Your task to perform on an android device: Search for seafood restaurants on Google Maps Image 0: 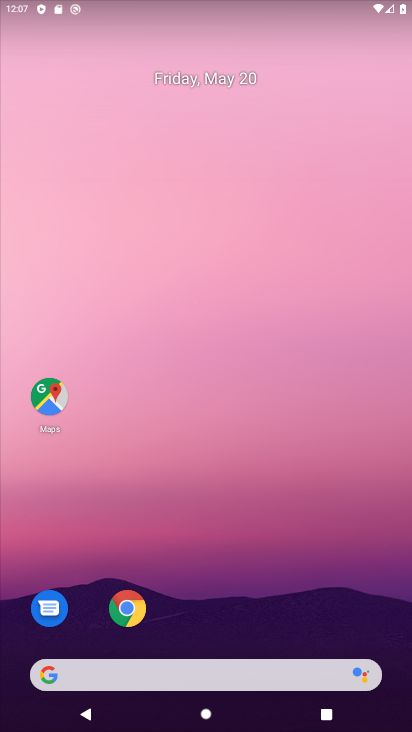
Step 0: drag from (295, 595) to (246, 199)
Your task to perform on an android device: Search for seafood restaurants on Google Maps Image 1: 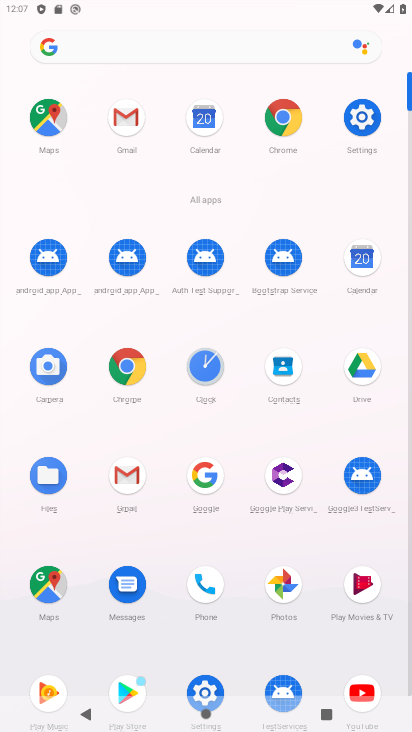
Step 1: click (45, 598)
Your task to perform on an android device: Search for seafood restaurants on Google Maps Image 2: 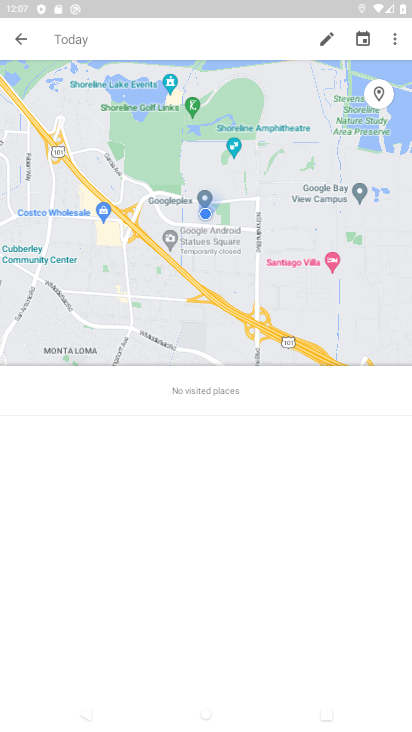
Step 2: click (97, 41)
Your task to perform on an android device: Search for seafood restaurants on Google Maps Image 3: 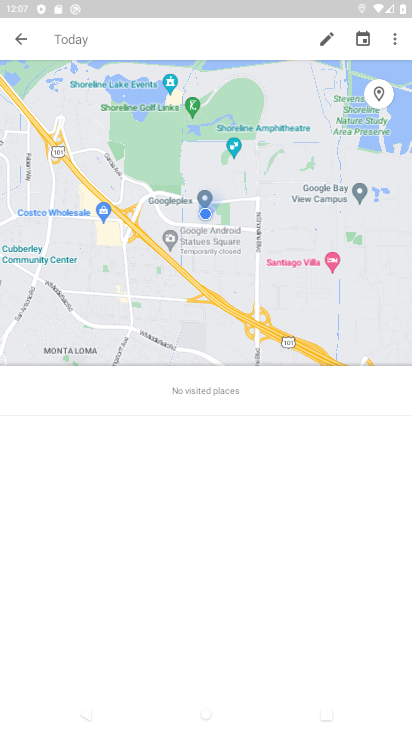
Step 3: click (126, 32)
Your task to perform on an android device: Search for seafood restaurants on Google Maps Image 4: 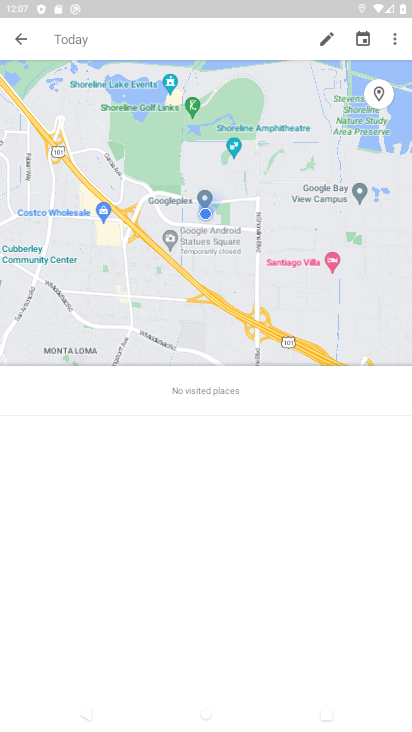
Step 4: click (22, 26)
Your task to perform on an android device: Search for seafood restaurants on Google Maps Image 5: 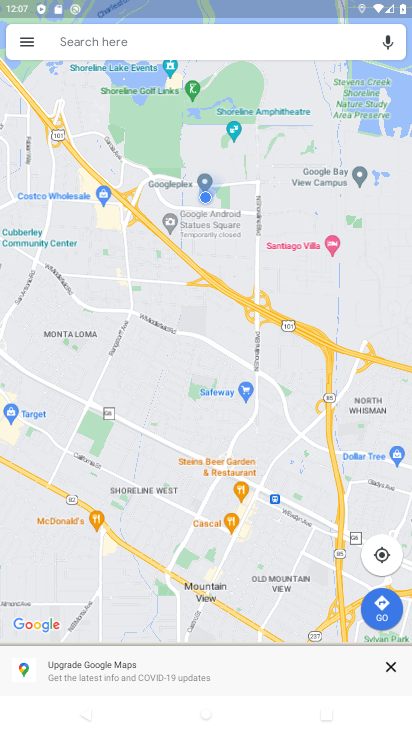
Step 5: click (103, 44)
Your task to perform on an android device: Search for seafood restaurants on Google Maps Image 6: 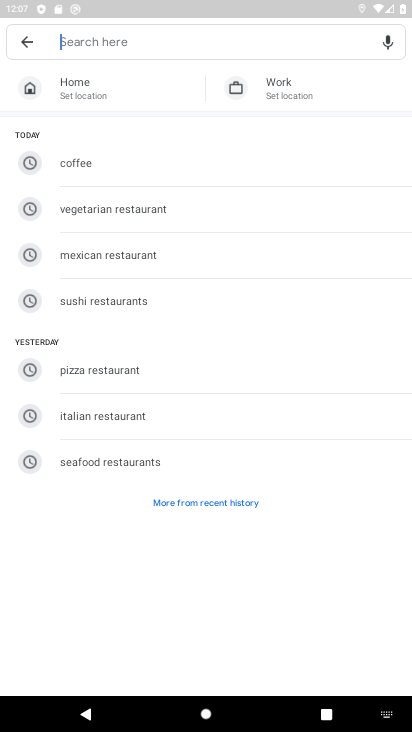
Step 6: click (110, 452)
Your task to perform on an android device: Search for seafood restaurants on Google Maps Image 7: 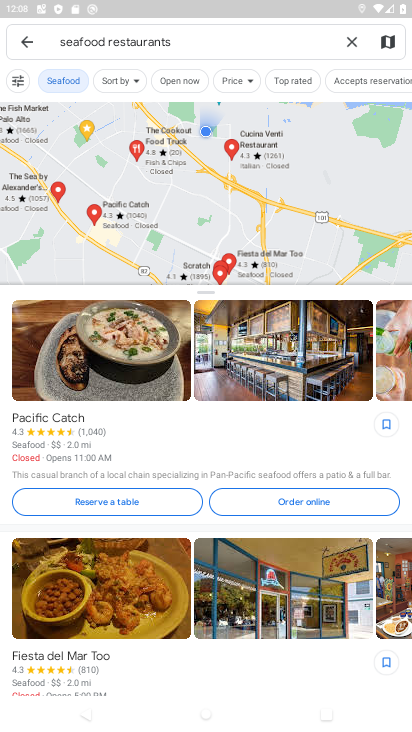
Step 7: task complete